Your task to perform on an android device: move a message to another label in the gmail app Image 0: 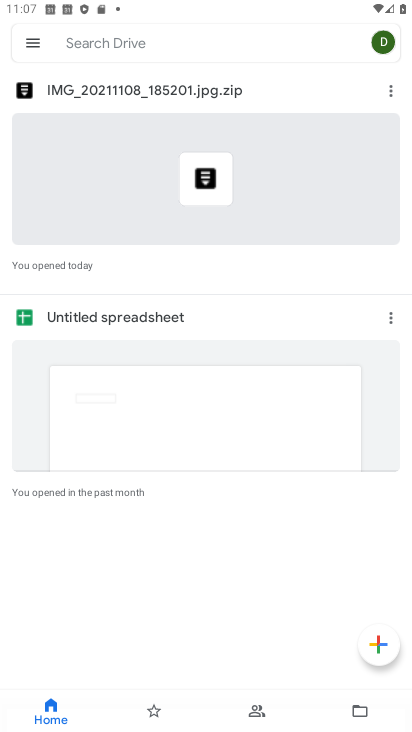
Step 0: drag from (160, 517) to (283, 306)
Your task to perform on an android device: move a message to another label in the gmail app Image 1: 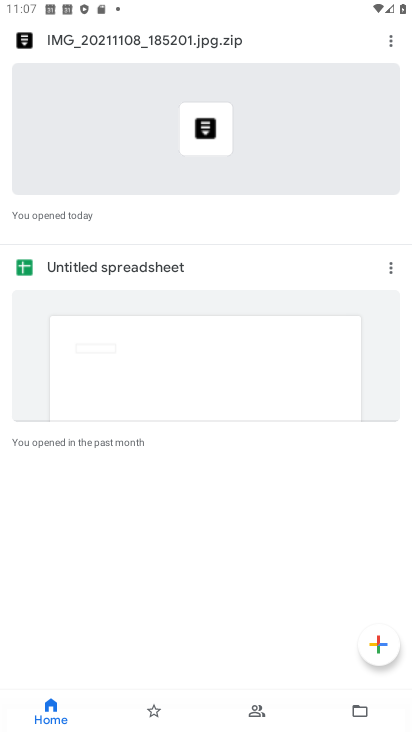
Step 1: press home button
Your task to perform on an android device: move a message to another label in the gmail app Image 2: 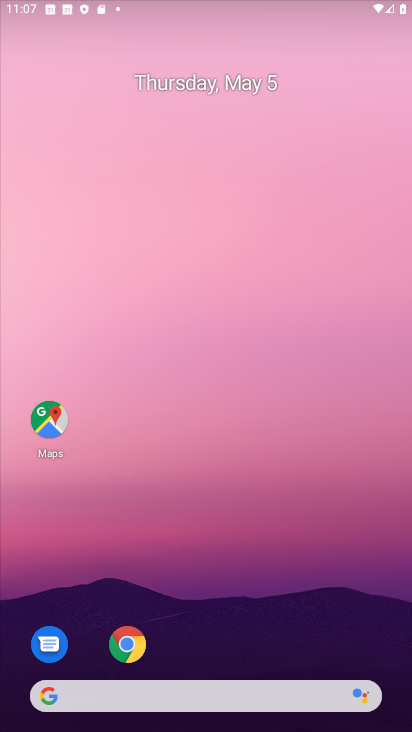
Step 2: drag from (187, 538) to (241, 202)
Your task to perform on an android device: move a message to another label in the gmail app Image 3: 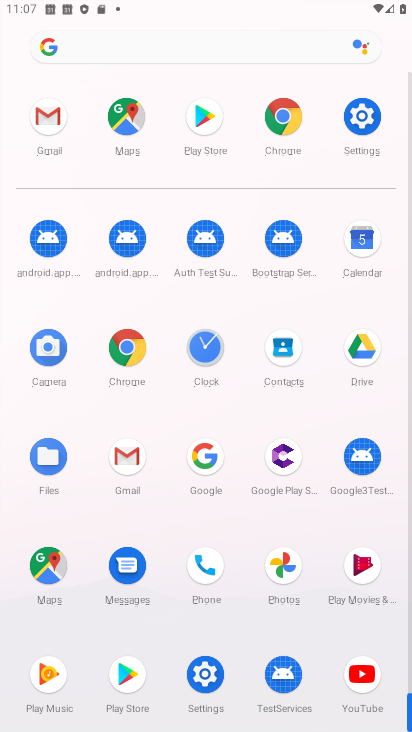
Step 3: click (128, 459)
Your task to perform on an android device: move a message to another label in the gmail app Image 4: 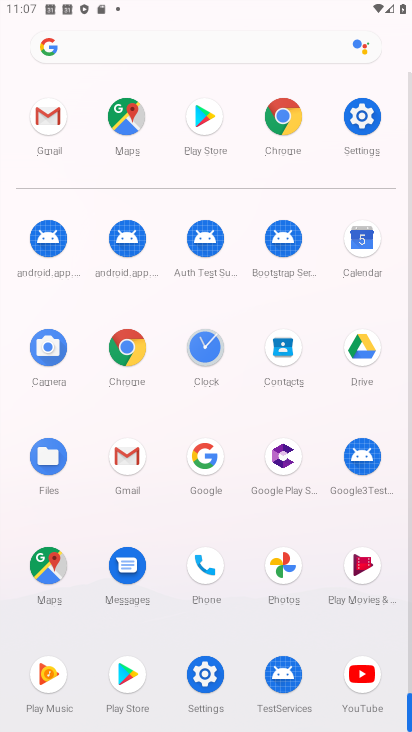
Step 4: click (128, 459)
Your task to perform on an android device: move a message to another label in the gmail app Image 5: 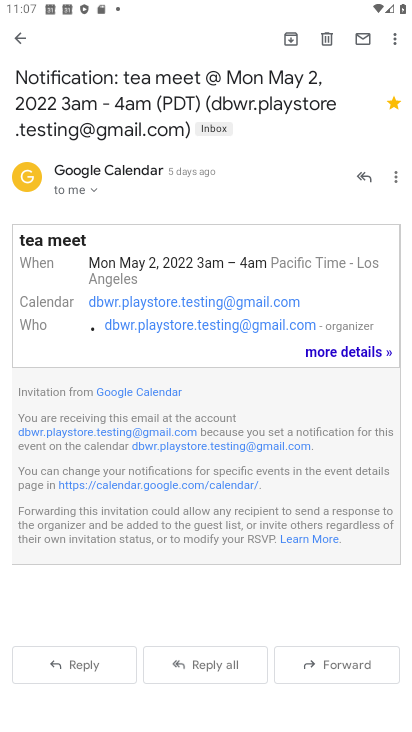
Step 5: drag from (182, 537) to (268, 155)
Your task to perform on an android device: move a message to another label in the gmail app Image 6: 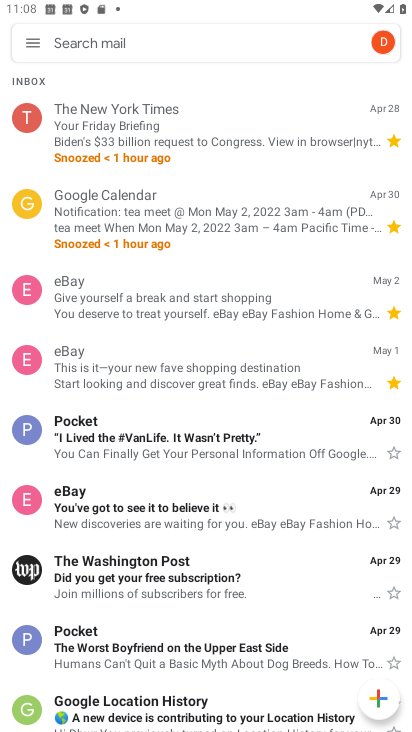
Step 6: click (180, 444)
Your task to perform on an android device: move a message to another label in the gmail app Image 7: 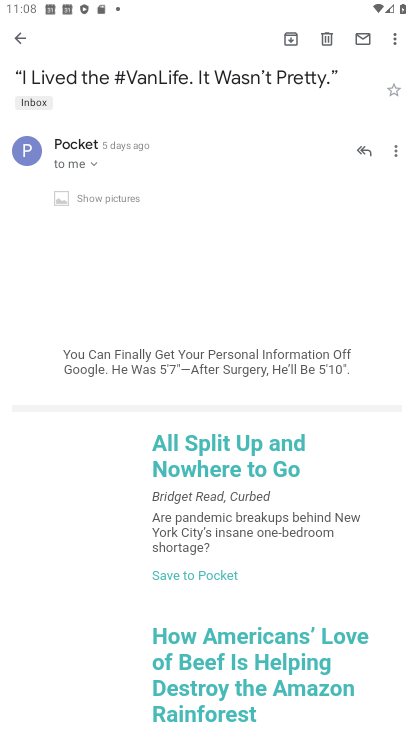
Step 7: click (394, 80)
Your task to perform on an android device: move a message to another label in the gmail app Image 8: 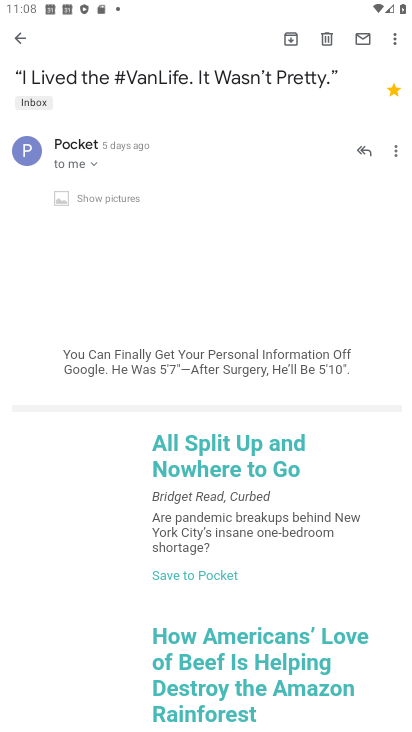
Step 8: task complete